Your task to perform on an android device: Go to internet settings Image 0: 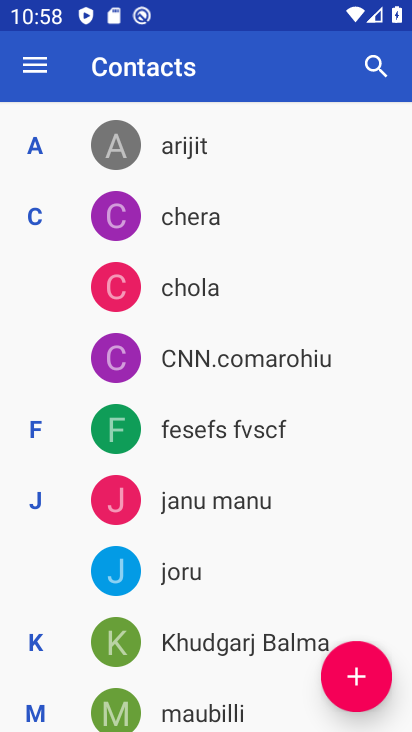
Step 0: press home button
Your task to perform on an android device: Go to internet settings Image 1: 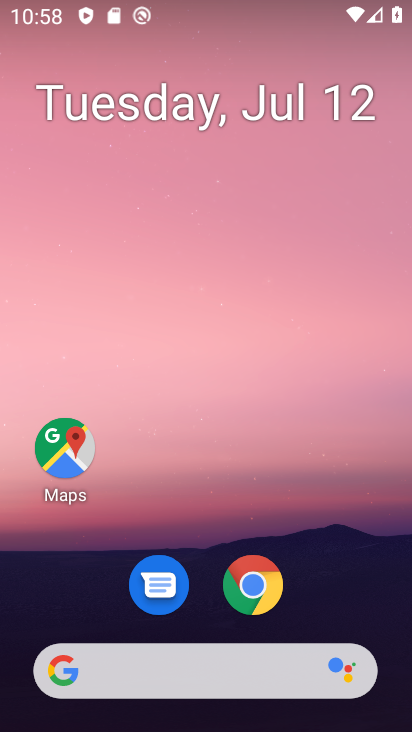
Step 1: drag from (297, 556) to (266, 38)
Your task to perform on an android device: Go to internet settings Image 2: 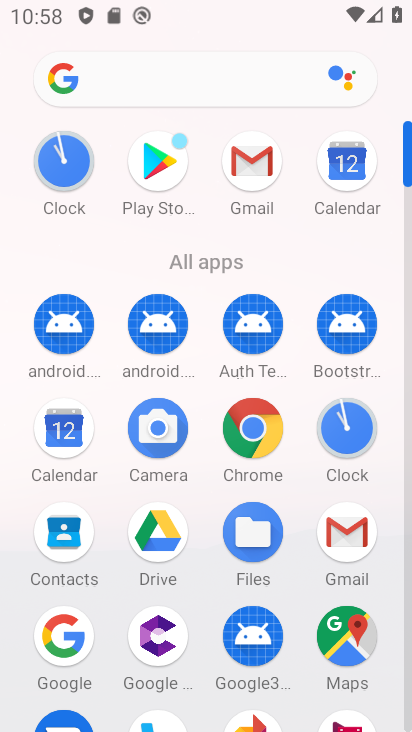
Step 2: drag from (202, 499) to (211, 147)
Your task to perform on an android device: Go to internet settings Image 3: 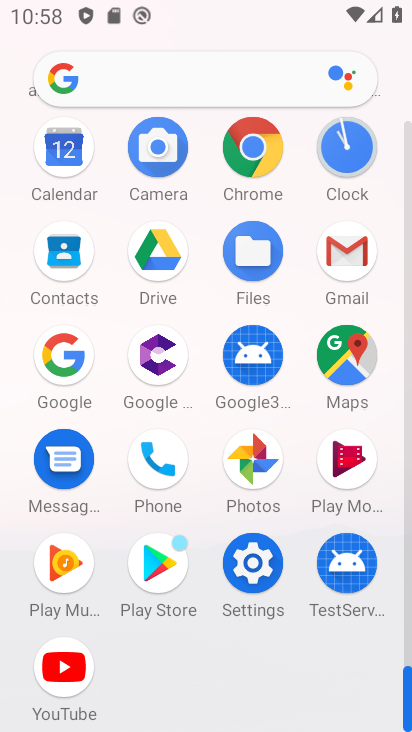
Step 3: click (266, 566)
Your task to perform on an android device: Go to internet settings Image 4: 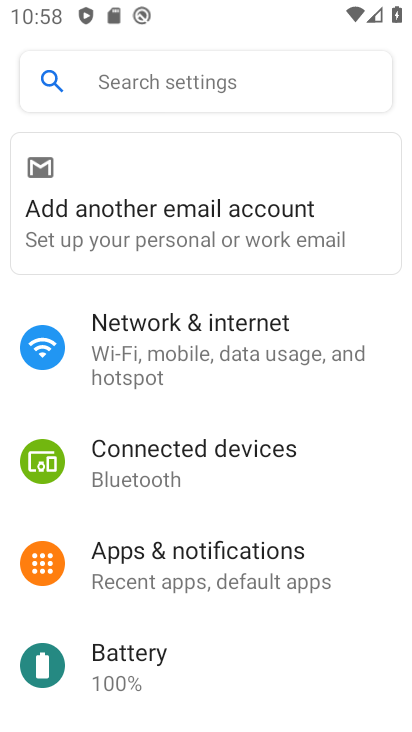
Step 4: click (304, 349)
Your task to perform on an android device: Go to internet settings Image 5: 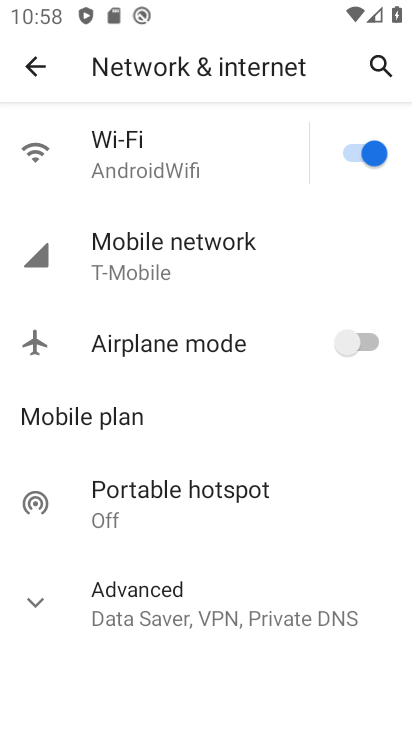
Step 5: task complete